Your task to perform on an android device: Set the phone to "Do not disturb". Image 0: 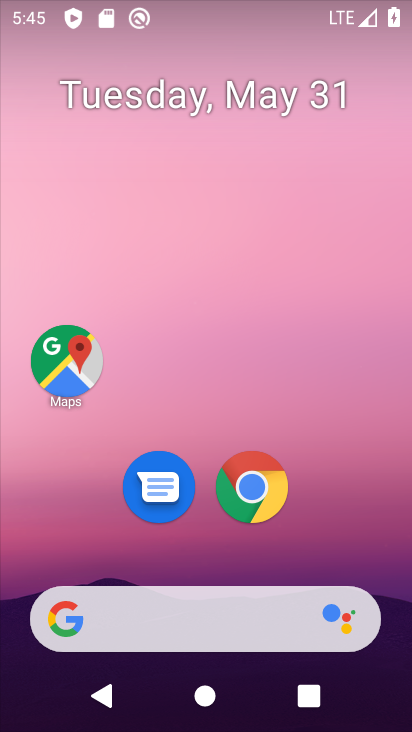
Step 0: drag from (321, 534) to (251, 92)
Your task to perform on an android device: Set the phone to "Do not disturb". Image 1: 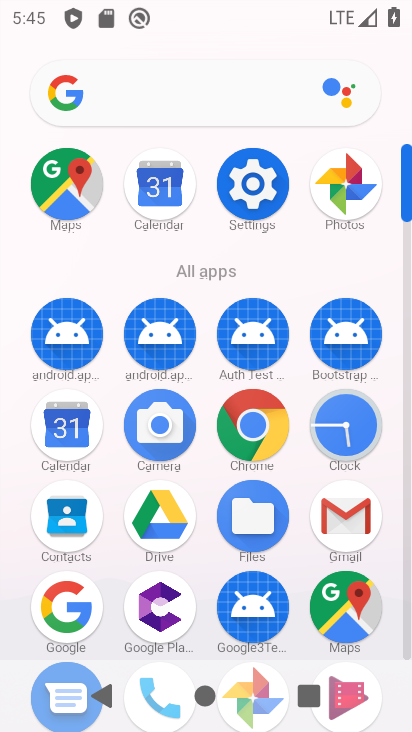
Step 1: click (254, 171)
Your task to perform on an android device: Set the phone to "Do not disturb". Image 2: 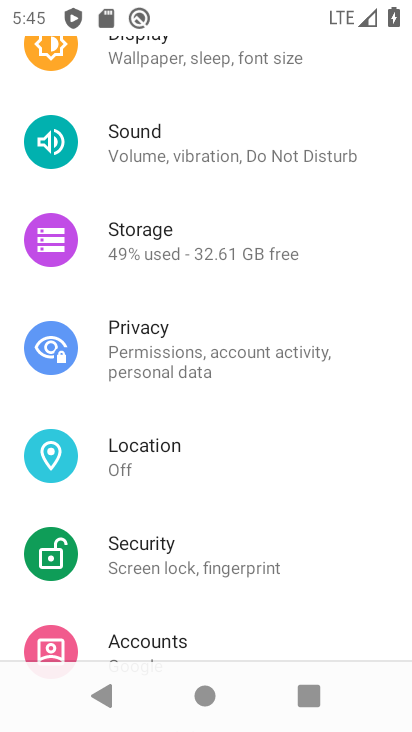
Step 2: click (152, 140)
Your task to perform on an android device: Set the phone to "Do not disturb". Image 3: 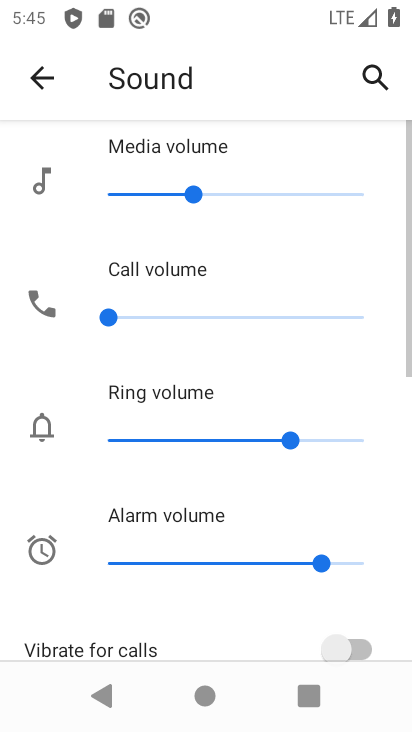
Step 3: drag from (283, 484) to (251, 171)
Your task to perform on an android device: Set the phone to "Do not disturb". Image 4: 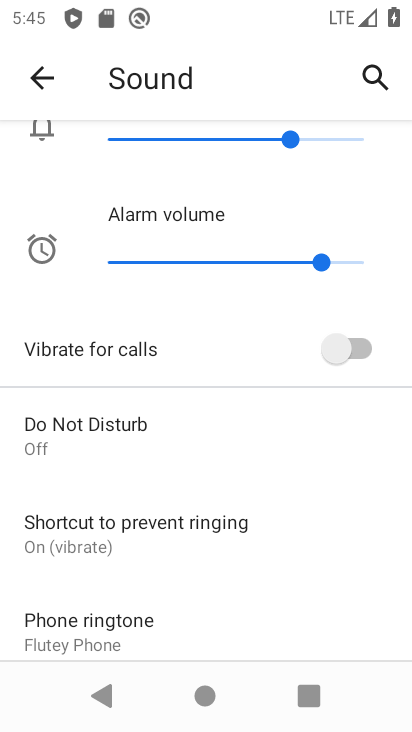
Step 4: click (71, 432)
Your task to perform on an android device: Set the phone to "Do not disturb". Image 5: 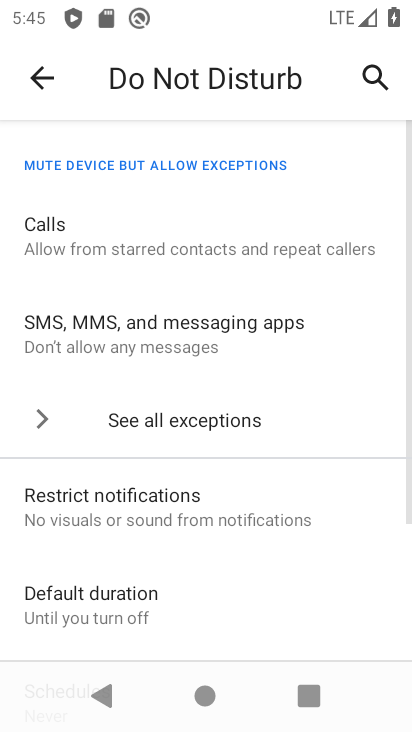
Step 5: drag from (294, 561) to (268, 147)
Your task to perform on an android device: Set the phone to "Do not disturb". Image 6: 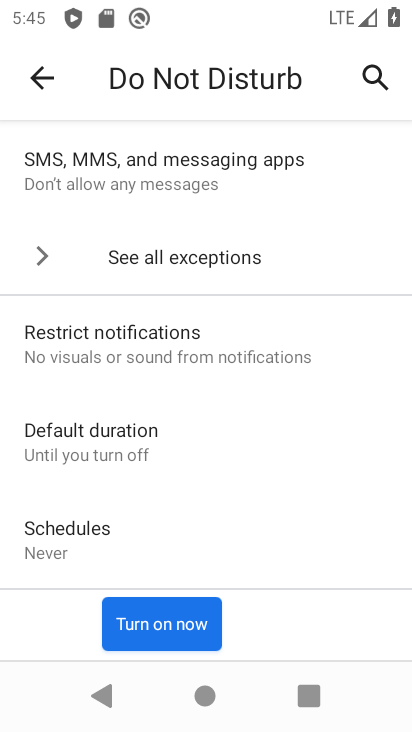
Step 6: click (158, 619)
Your task to perform on an android device: Set the phone to "Do not disturb". Image 7: 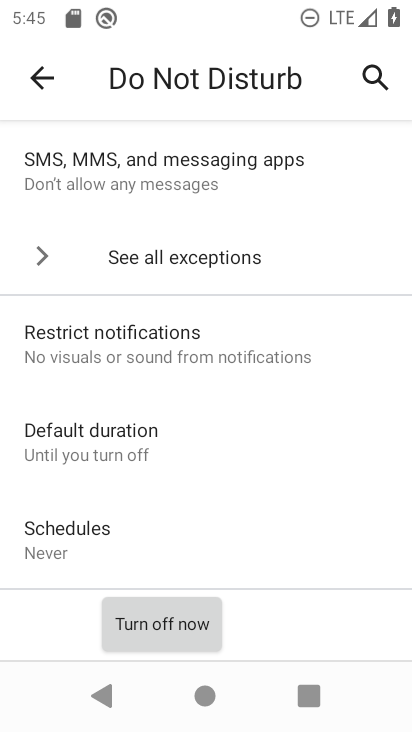
Step 7: task complete